Your task to perform on an android device: turn on wifi Image 0: 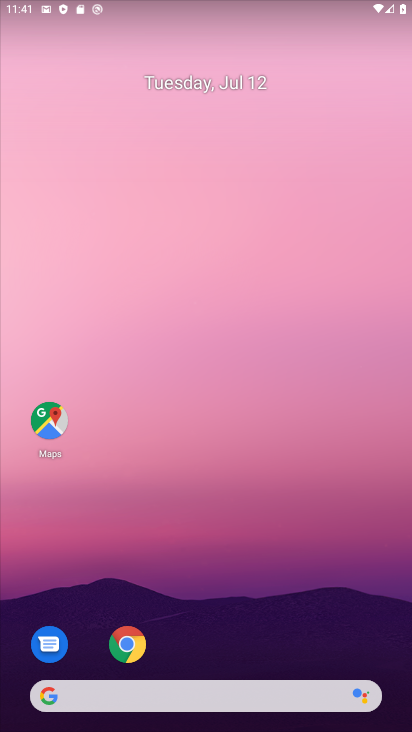
Step 0: drag from (239, 562) to (234, 53)
Your task to perform on an android device: turn on wifi Image 1: 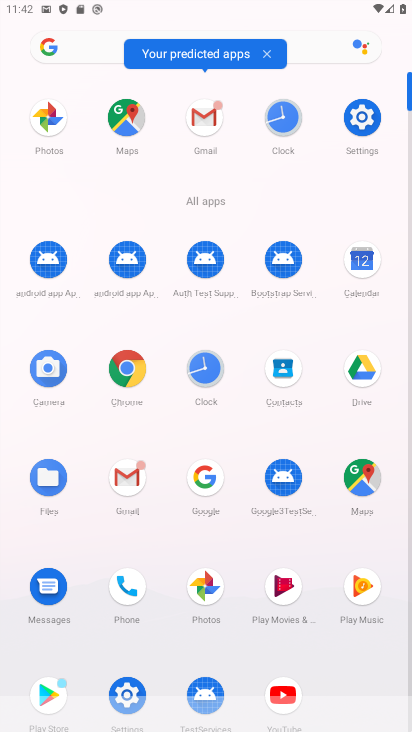
Step 1: click (355, 113)
Your task to perform on an android device: turn on wifi Image 2: 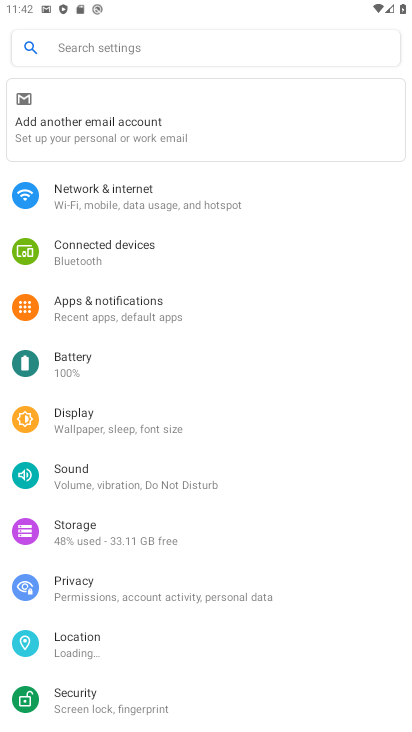
Step 2: click (128, 189)
Your task to perform on an android device: turn on wifi Image 3: 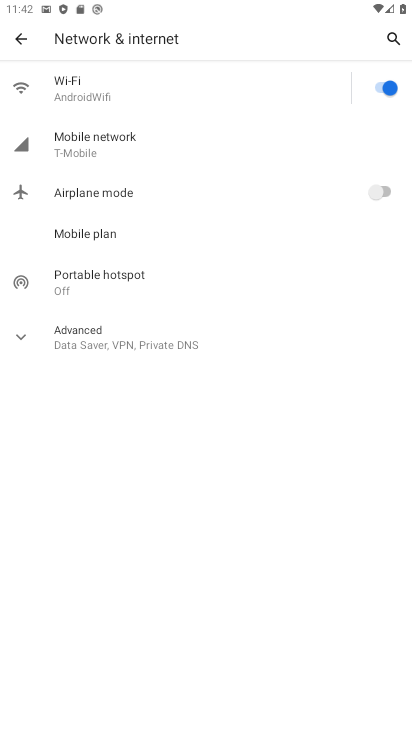
Step 3: task complete